Your task to perform on an android device: change the clock display to show seconds Image 0: 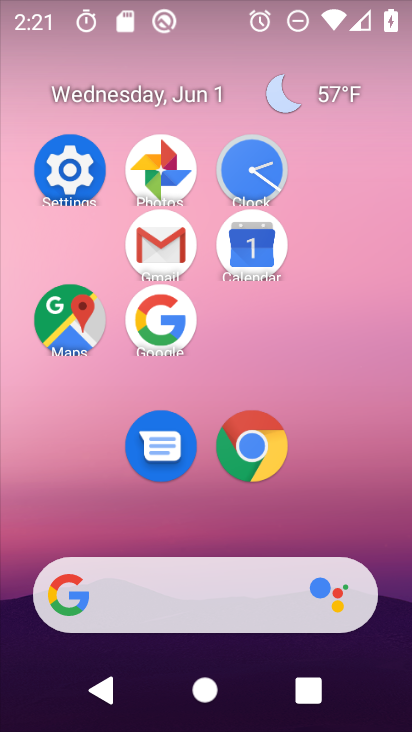
Step 0: click (253, 162)
Your task to perform on an android device: change the clock display to show seconds Image 1: 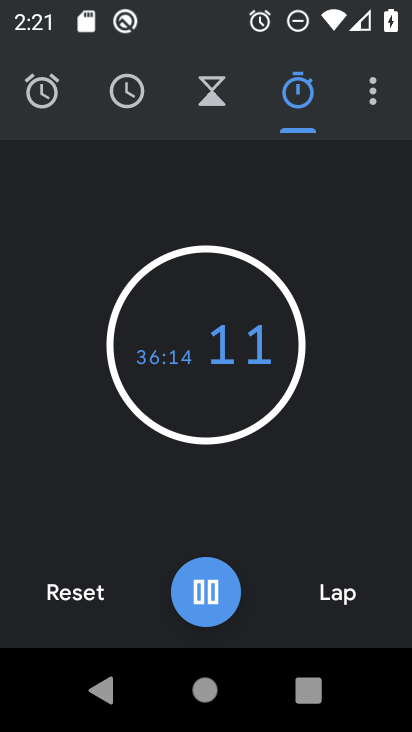
Step 1: click (371, 84)
Your task to perform on an android device: change the clock display to show seconds Image 2: 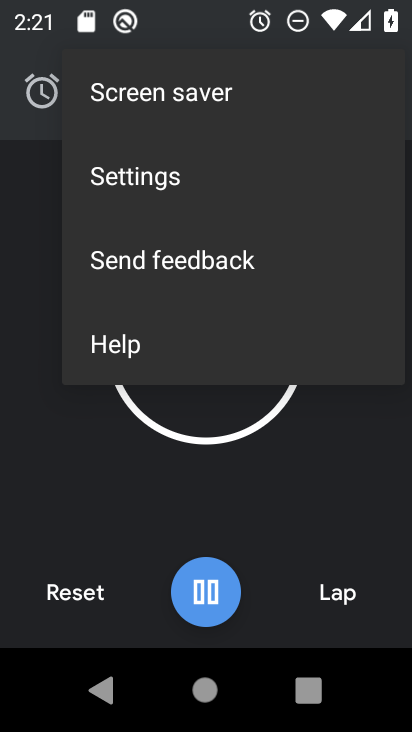
Step 2: click (212, 158)
Your task to perform on an android device: change the clock display to show seconds Image 3: 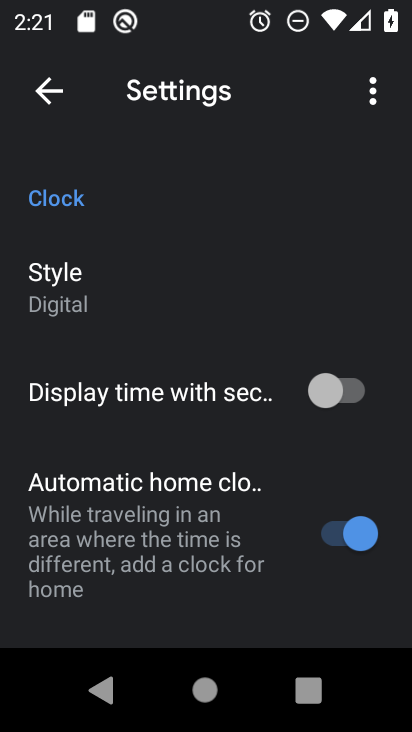
Step 3: click (350, 391)
Your task to perform on an android device: change the clock display to show seconds Image 4: 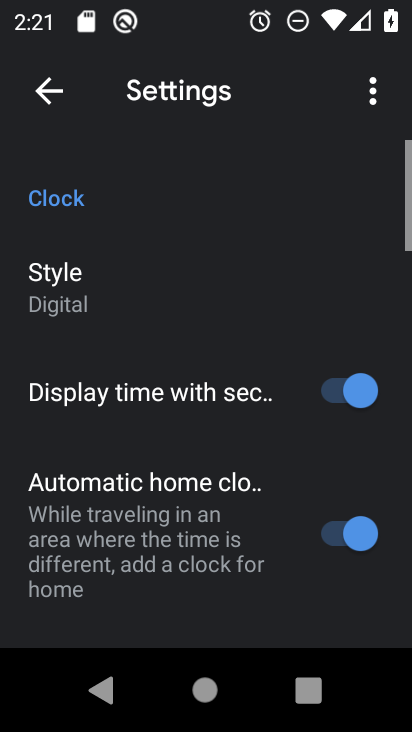
Step 4: task complete